Your task to perform on an android device: delete location history Image 0: 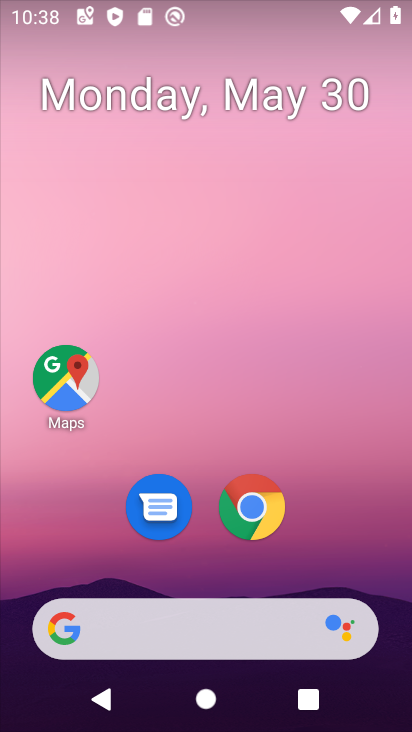
Step 0: click (286, 17)
Your task to perform on an android device: delete location history Image 1: 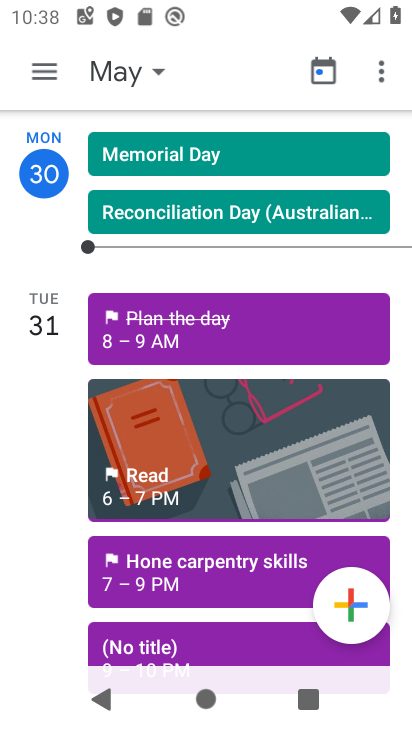
Step 1: press home button
Your task to perform on an android device: delete location history Image 2: 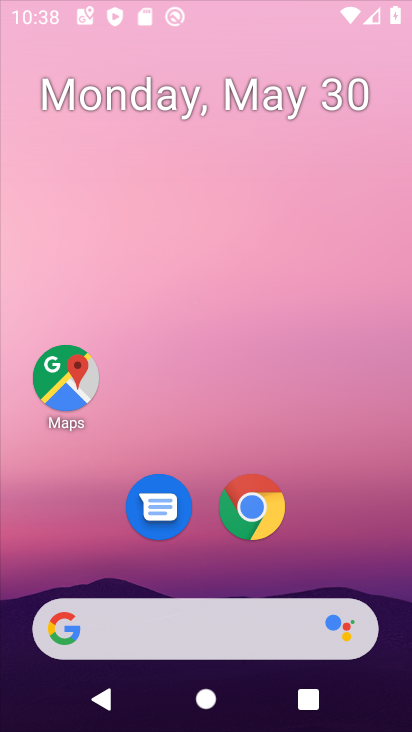
Step 2: drag from (396, 657) to (300, 15)
Your task to perform on an android device: delete location history Image 3: 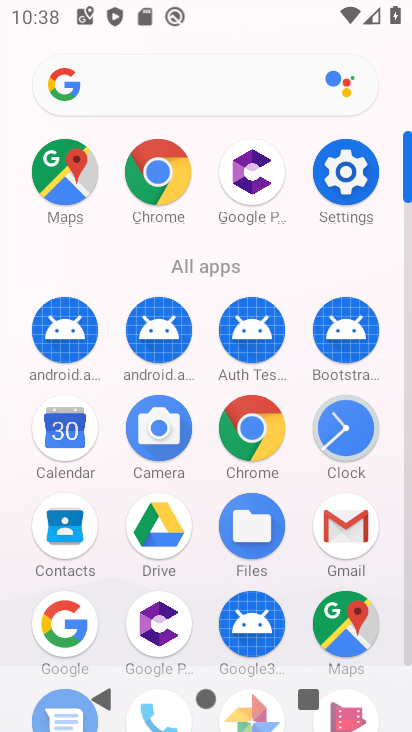
Step 3: click (338, 176)
Your task to perform on an android device: delete location history Image 4: 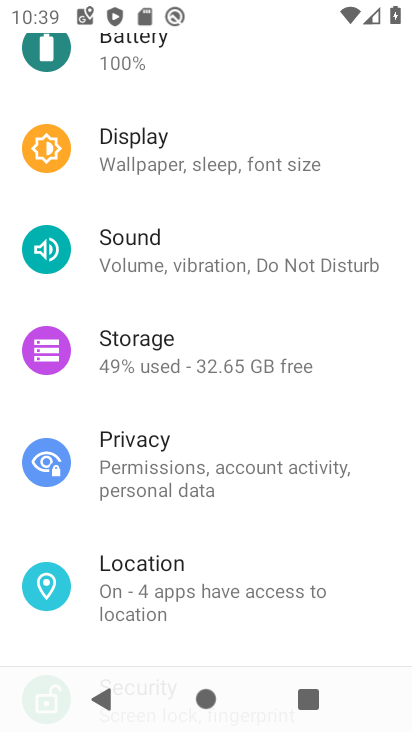
Step 4: click (129, 598)
Your task to perform on an android device: delete location history Image 5: 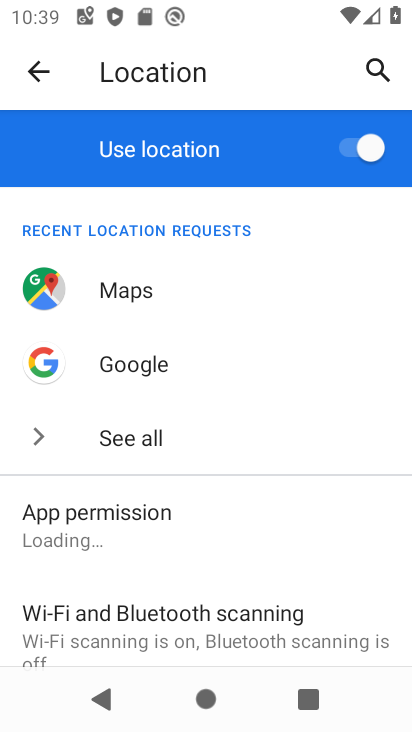
Step 5: drag from (79, 606) to (147, 180)
Your task to perform on an android device: delete location history Image 6: 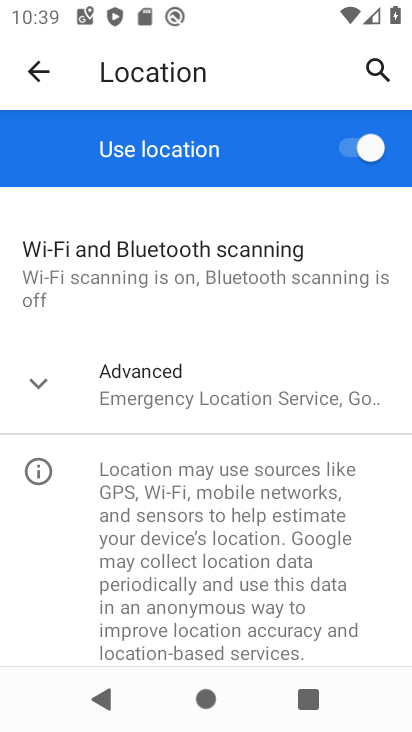
Step 6: click (147, 376)
Your task to perform on an android device: delete location history Image 7: 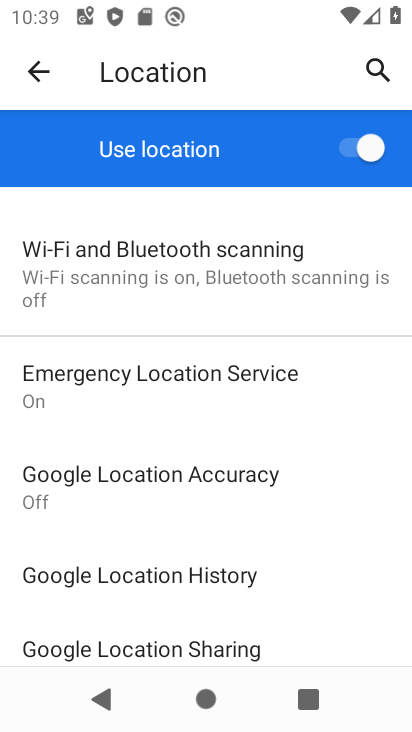
Step 7: click (218, 593)
Your task to perform on an android device: delete location history Image 8: 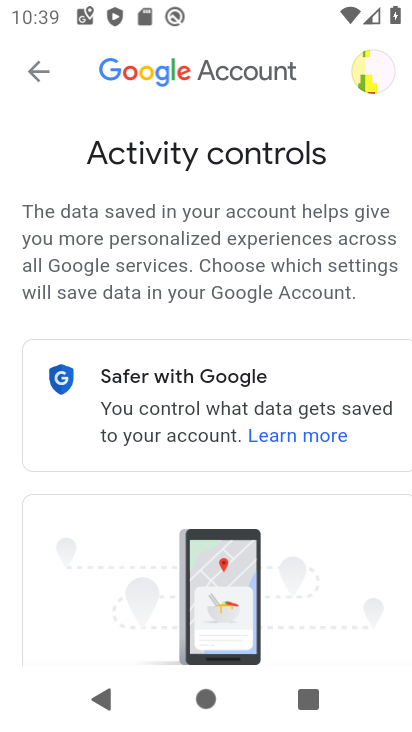
Step 8: drag from (287, 610) to (266, 96)
Your task to perform on an android device: delete location history Image 9: 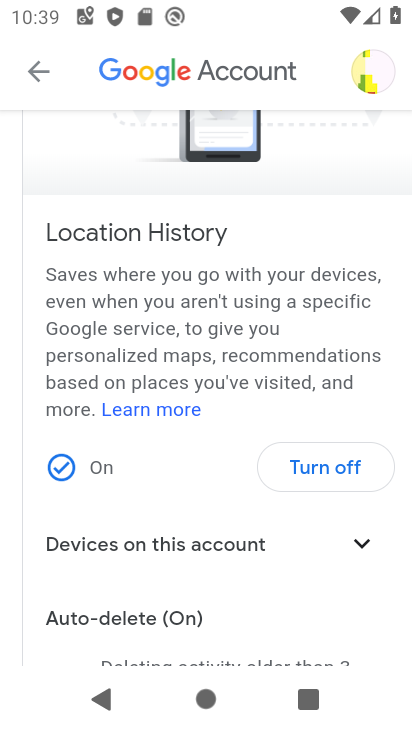
Step 9: drag from (221, 594) to (231, 182)
Your task to perform on an android device: delete location history Image 10: 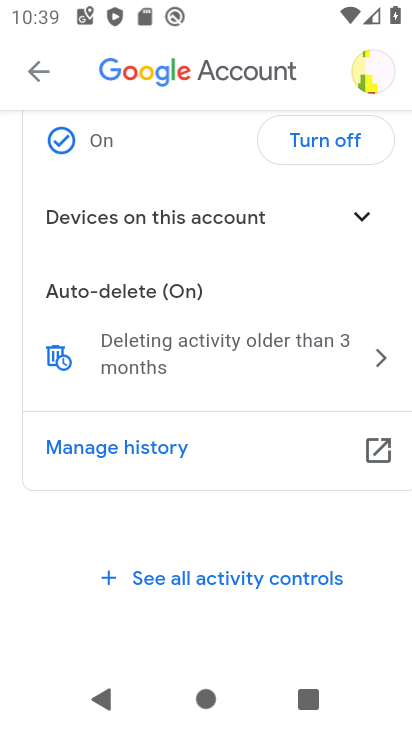
Step 10: click (226, 359)
Your task to perform on an android device: delete location history Image 11: 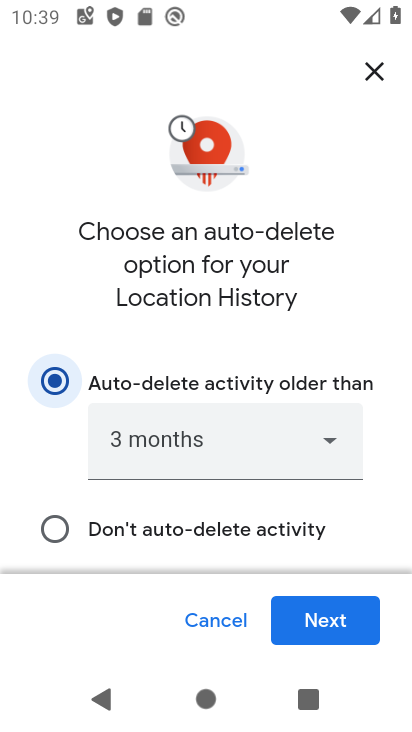
Step 11: click (330, 631)
Your task to perform on an android device: delete location history Image 12: 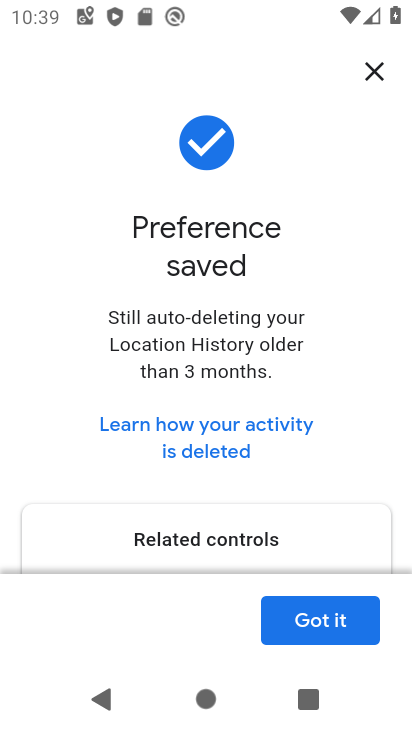
Step 12: click (316, 621)
Your task to perform on an android device: delete location history Image 13: 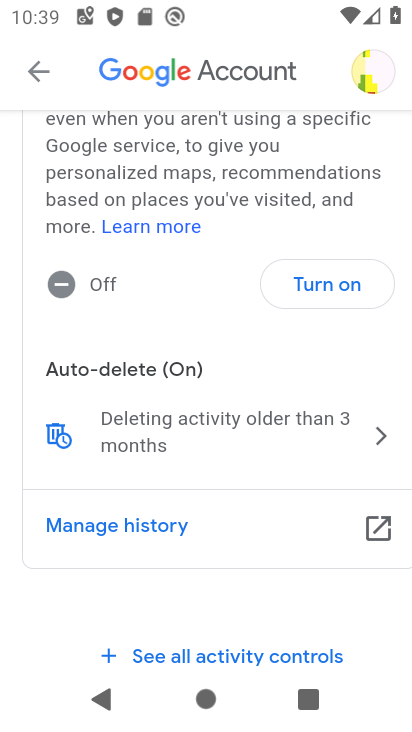
Step 13: task complete